Your task to perform on an android device: Is it going to rain today? Image 0: 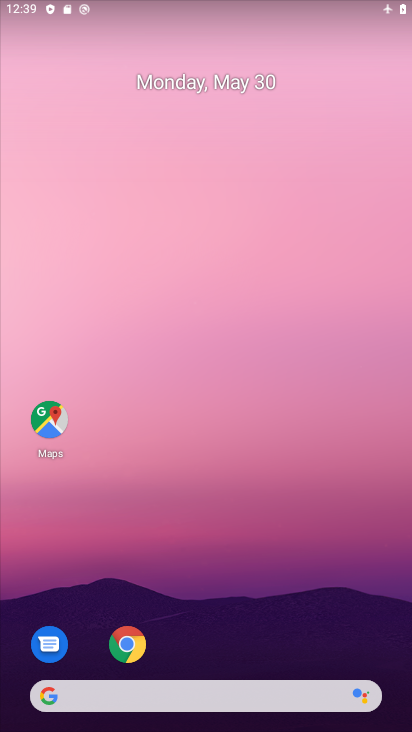
Step 0: drag from (328, 663) to (330, 265)
Your task to perform on an android device: Is it going to rain today? Image 1: 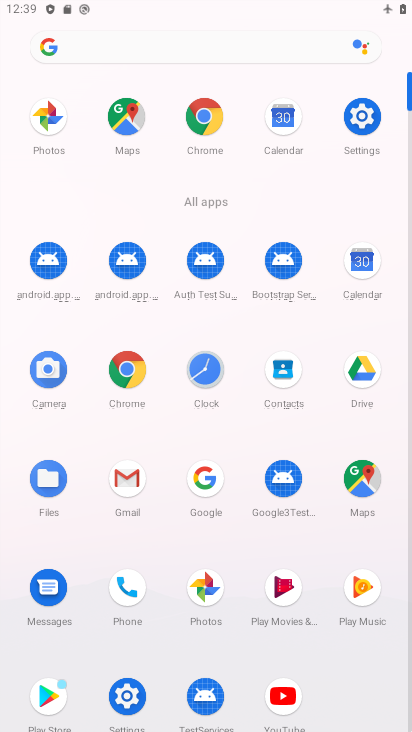
Step 1: click (122, 384)
Your task to perform on an android device: Is it going to rain today? Image 2: 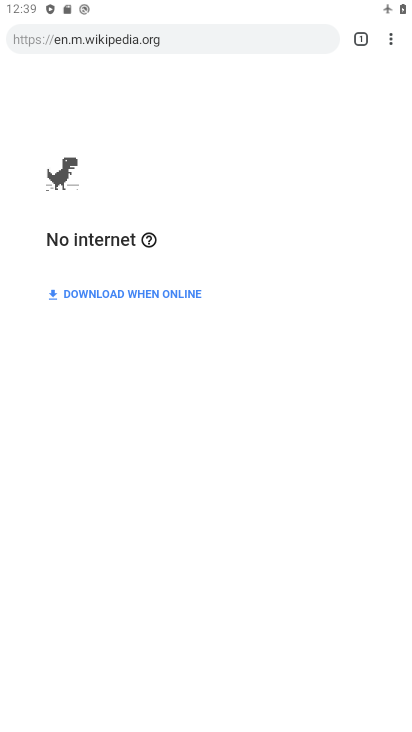
Step 2: click (239, 35)
Your task to perform on an android device: Is it going to rain today? Image 3: 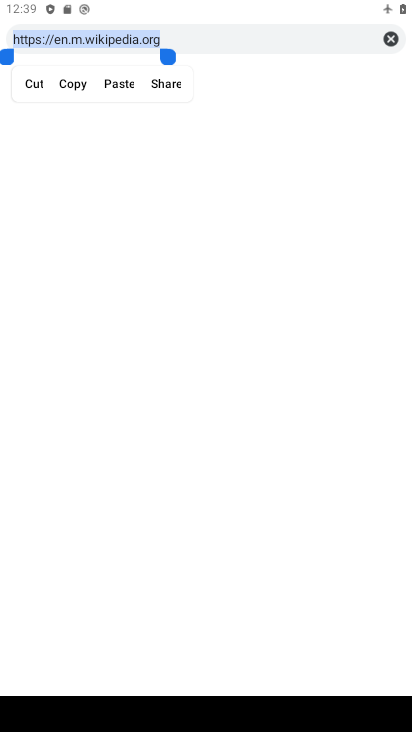
Step 3: click (395, 44)
Your task to perform on an android device: Is it going to rain today? Image 4: 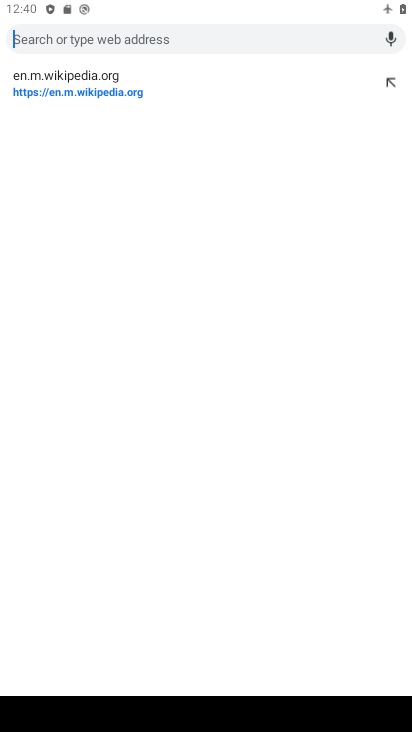
Step 4: type "is it going to rain today"
Your task to perform on an android device: Is it going to rain today? Image 5: 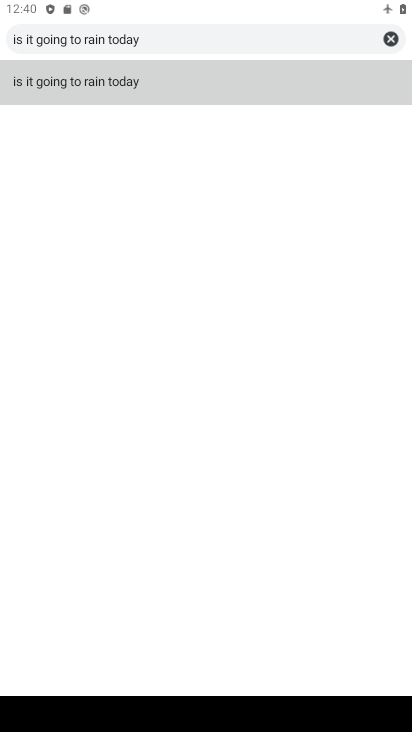
Step 5: click (114, 89)
Your task to perform on an android device: Is it going to rain today? Image 6: 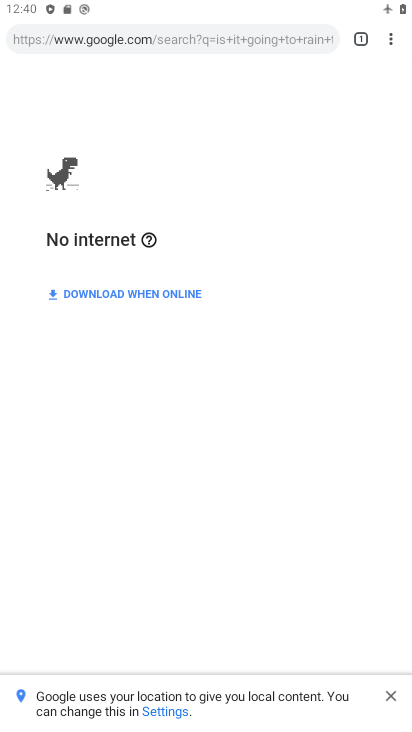
Step 6: task complete